Your task to perform on an android device: Go to privacy settings Image 0: 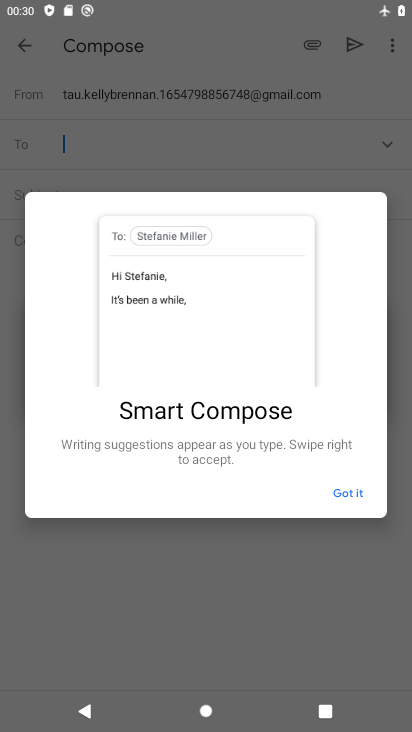
Step 0: press home button
Your task to perform on an android device: Go to privacy settings Image 1: 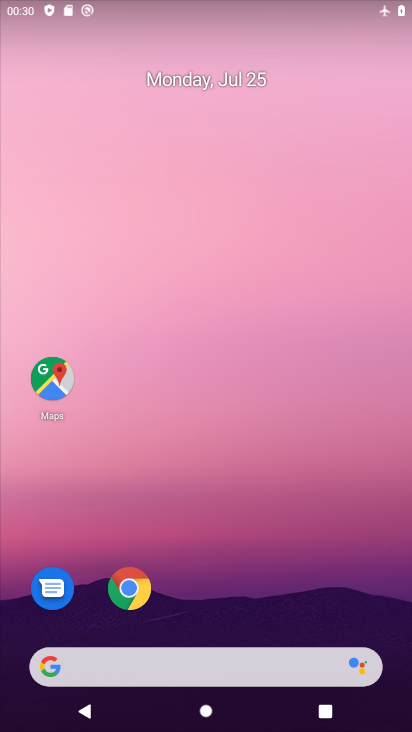
Step 1: drag from (201, 609) to (230, 172)
Your task to perform on an android device: Go to privacy settings Image 2: 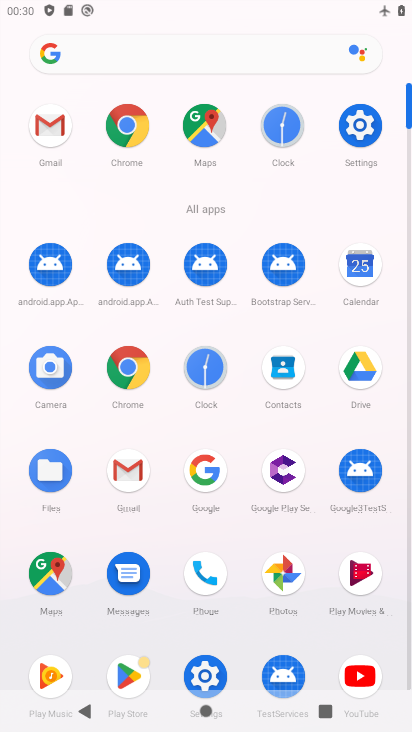
Step 2: click (204, 663)
Your task to perform on an android device: Go to privacy settings Image 3: 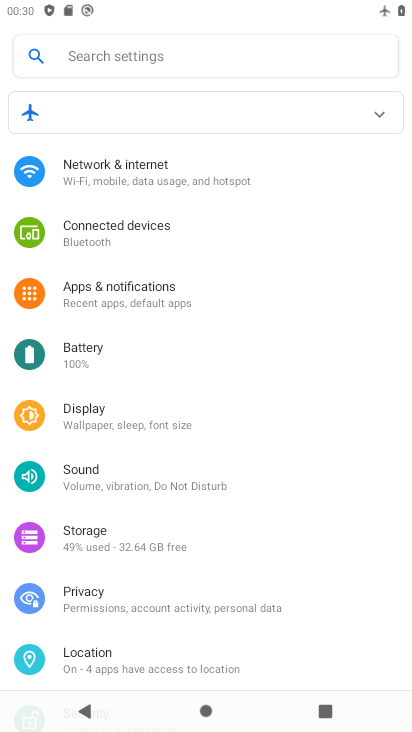
Step 3: click (83, 593)
Your task to perform on an android device: Go to privacy settings Image 4: 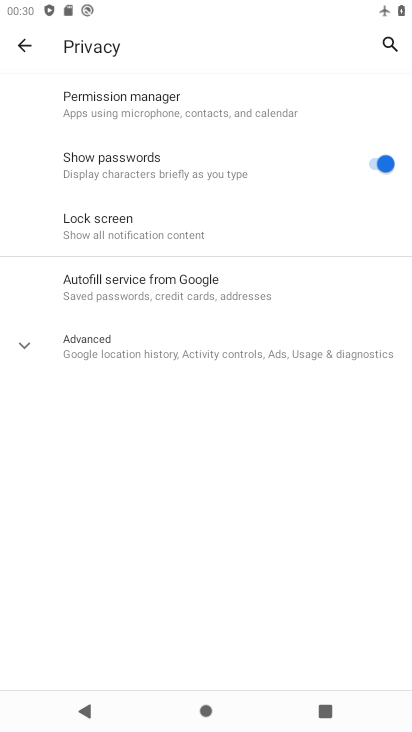
Step 4: task complete